Your task to perform on an android device: Open calendar and show me the first week of next month Image 0: 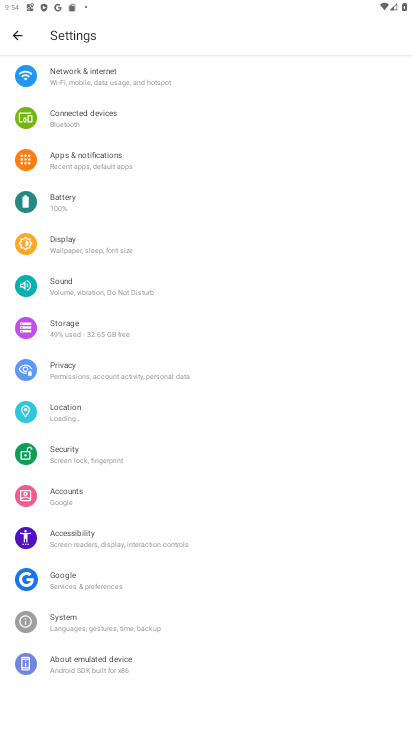
Step 0: press home button
Your task to perform on an android device: Open calendar and show me the first week of next month Image 1: 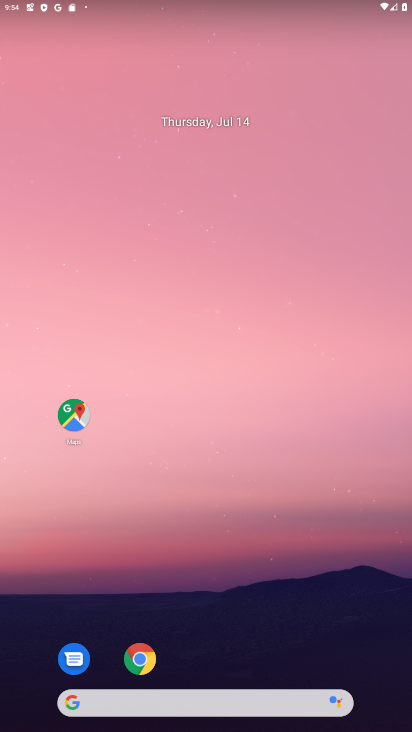
Step 1: drag from (305, 571) to (226, 47)
Your task to perform on an android device: Open calendar and show me the first week of next month Image 2: 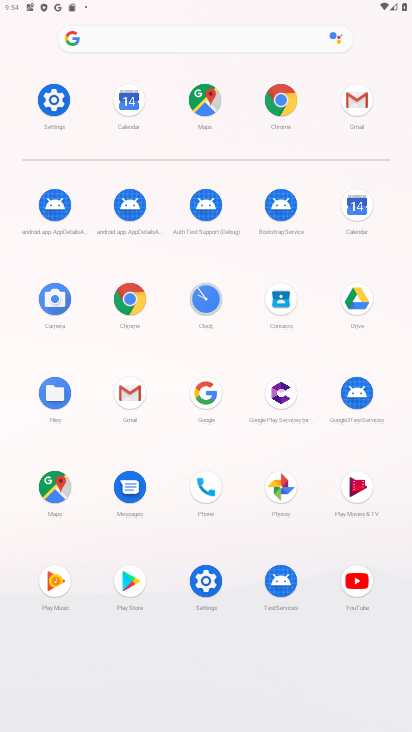
Step 2: click (357, 211)
Your task to perform on an android device: Open calendar and show me the first week of next month Image 3: 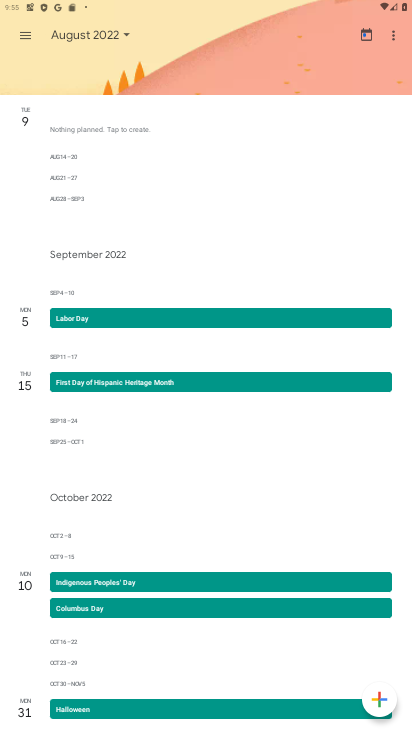
Step 3: click (82, 31)
Your task to perform on an android device: Open calendar and show me the first week of next month Image 4: 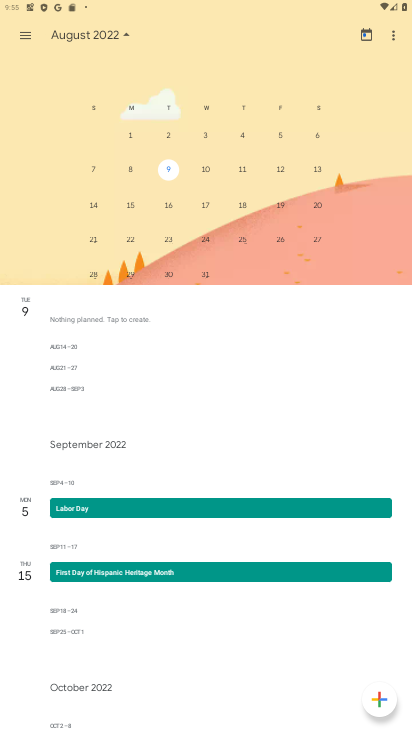
Step 4: click (172, 133)
Your task to perform on an android device: Open calendar and show me the first week of next month Image 5: 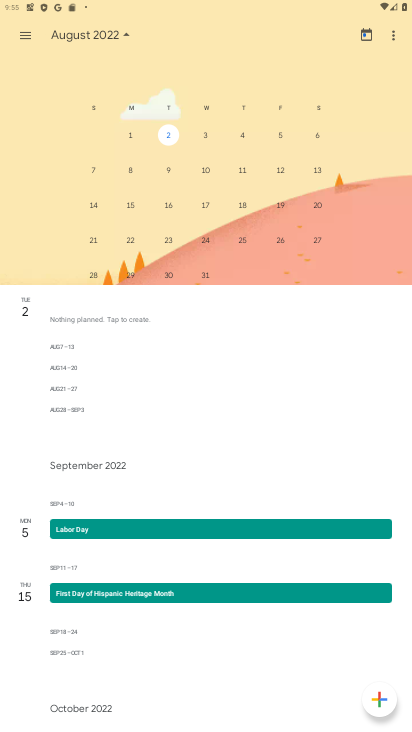
Step 5: drag from (225, 364) to (221, 60)
Your task to perform on an android device: Open calendar and show me the first week of next month Image 6: 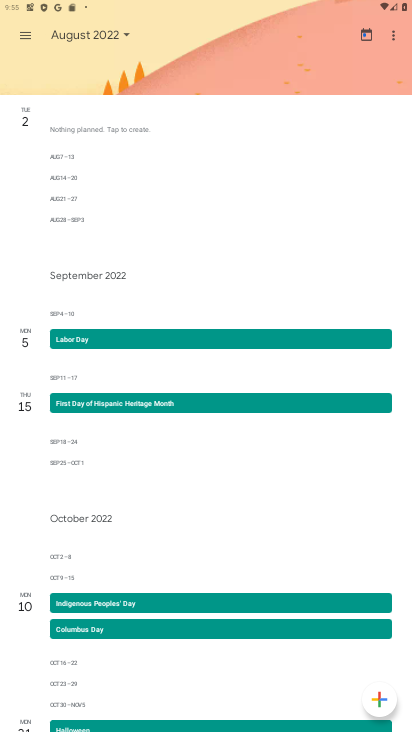
Step 6: click (34, 39)
Your task to perform on an android device: Open calendar and show me the first week of next month Image 7: 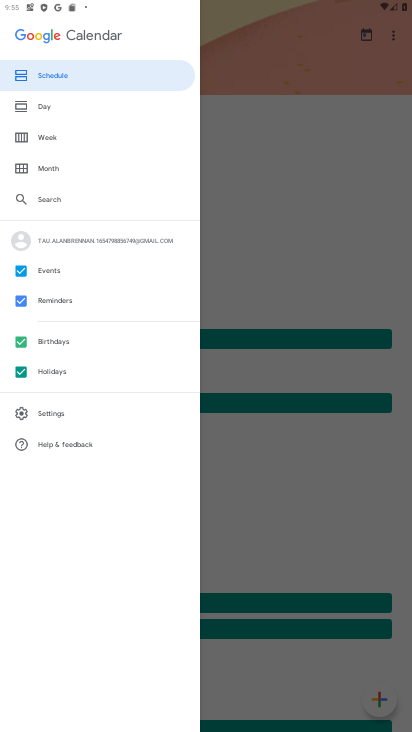
Step 7: click (51, 140)
Your task to perform on an android device: Open calendar and show me the first week of next month Image 8: 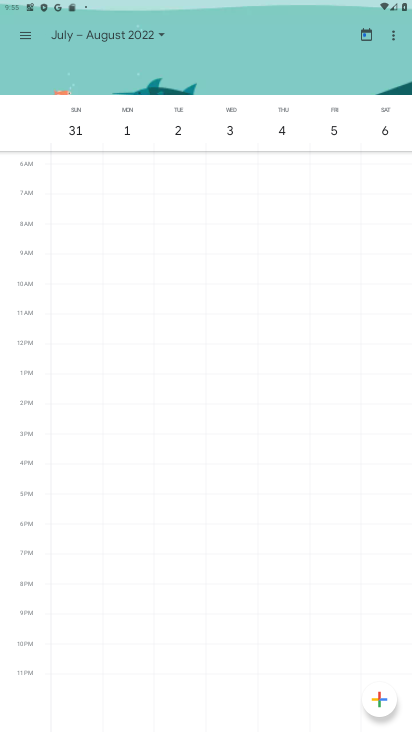
Step 8: task complete